Your task to perform on an android device: Go to settings Image 0: 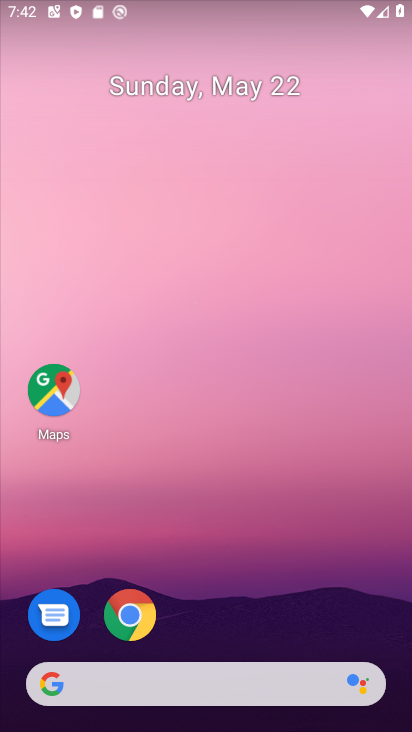
Step 0: drag from (216, 656) to (212, 50)
Your task to perform on an android device: Go to settings Image 1: 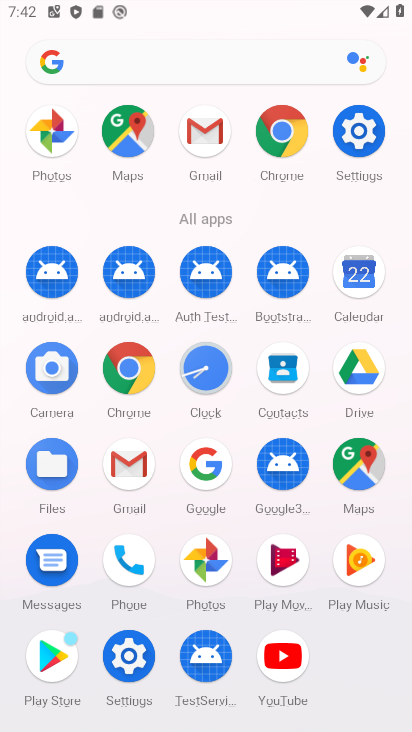
Step 1: click (364, 138)
Your task to perform on an android device: Go to settings Image 2: 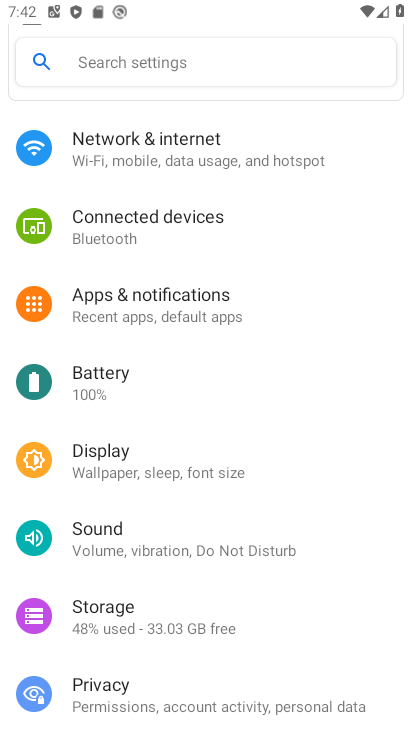
Step 2: task complete